Your task to perform on an android device: open sync settings in chrome Image 0: 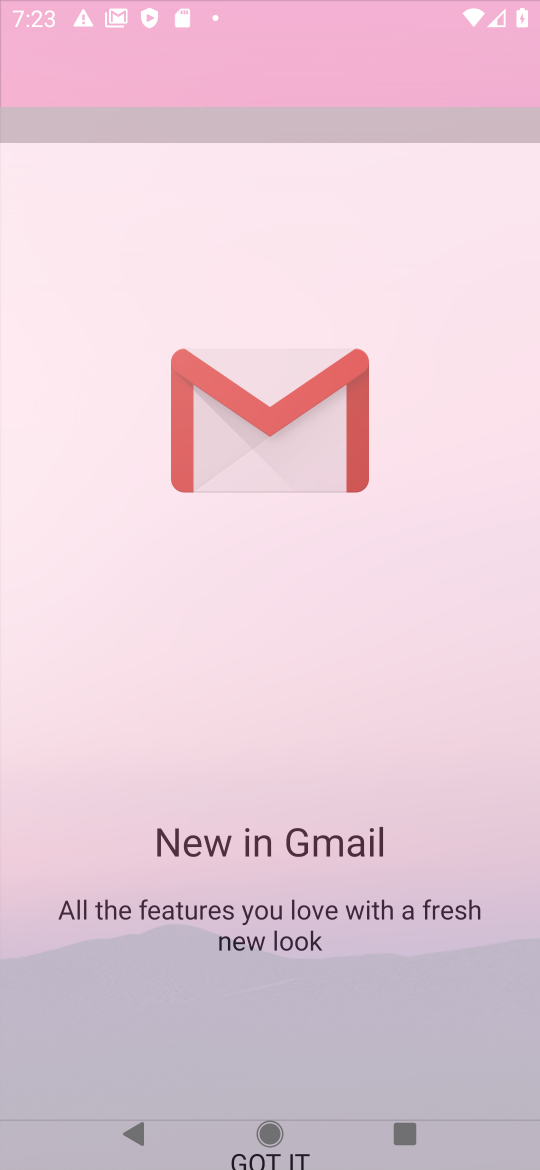
Step 0: press home button
Your task to perform on an android device: open sync settings in chrome Image 1: 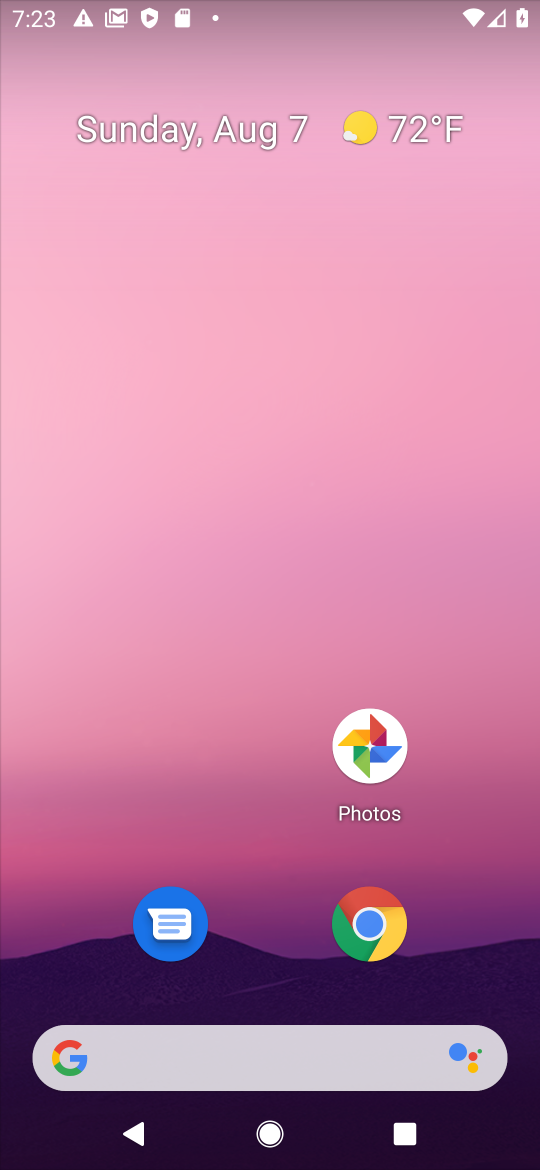
Step 1: drag from (424, 1081) to (361, 262)
Your task to perform on an android device: open sync settings in chrome Image 2: 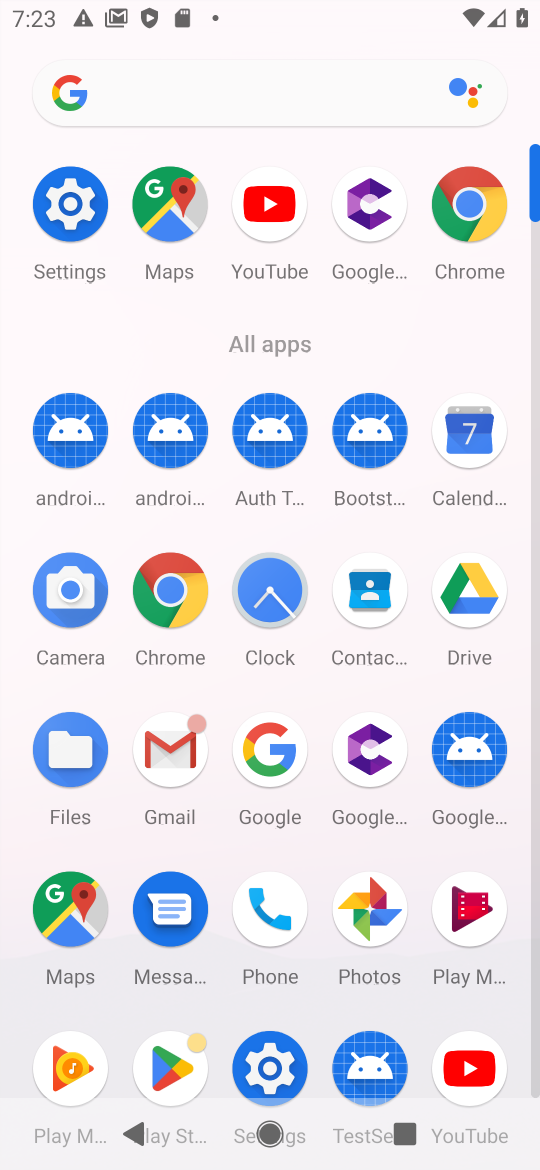
Step 2: click (453, 210)
Your task to perform on an android device: open sync settings in chrome Image 3: 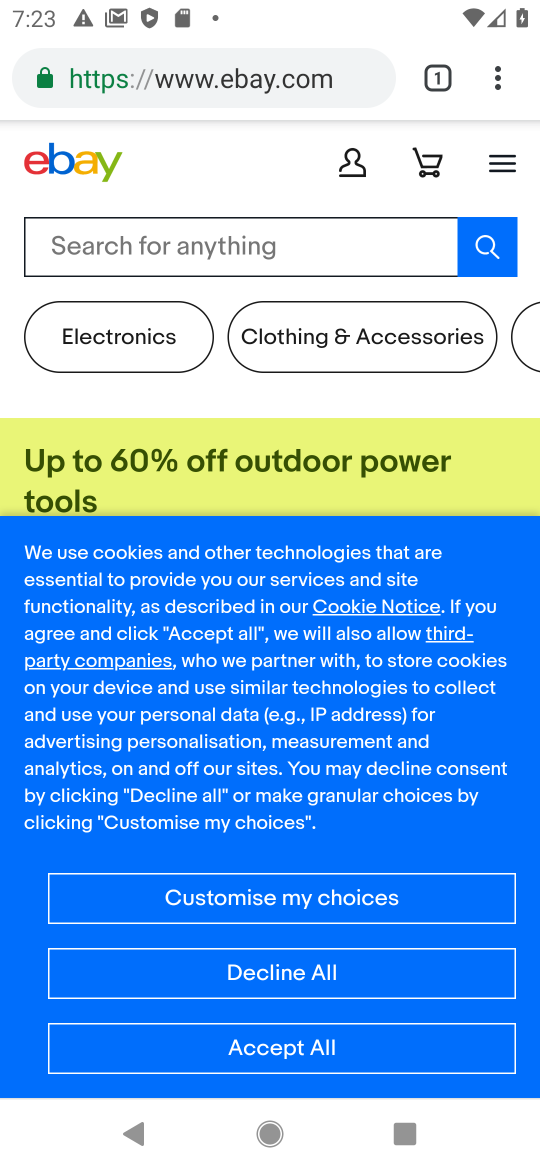
Step 3: click (492, 83)
Your task to perform on an android device: open sync settings in chrome Image 4: 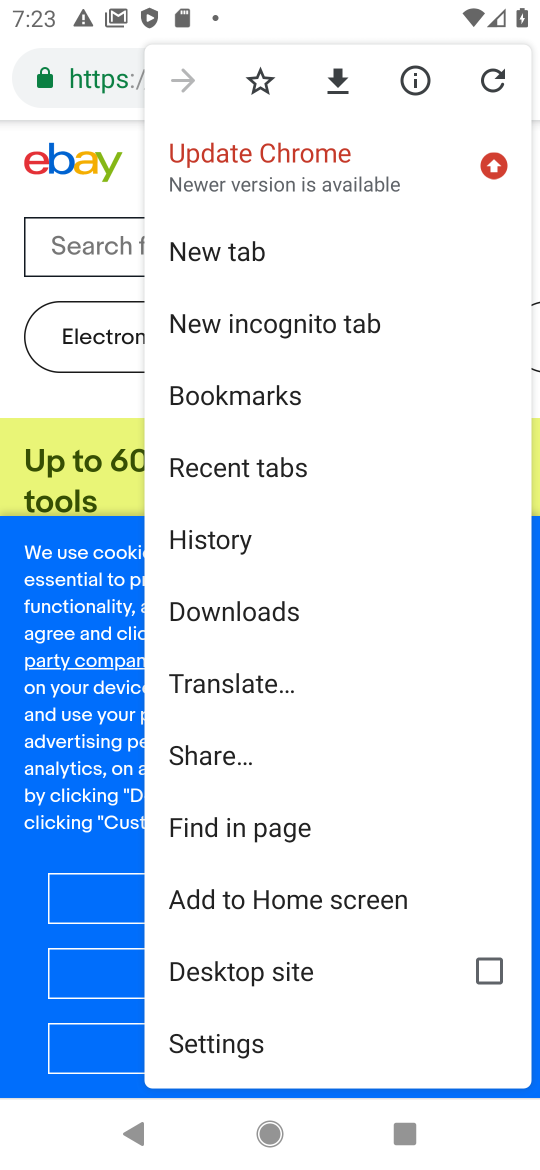
Step 4: click (205, 1049)
Your task to perform on an android device: open sync settings in chrome Image 5: 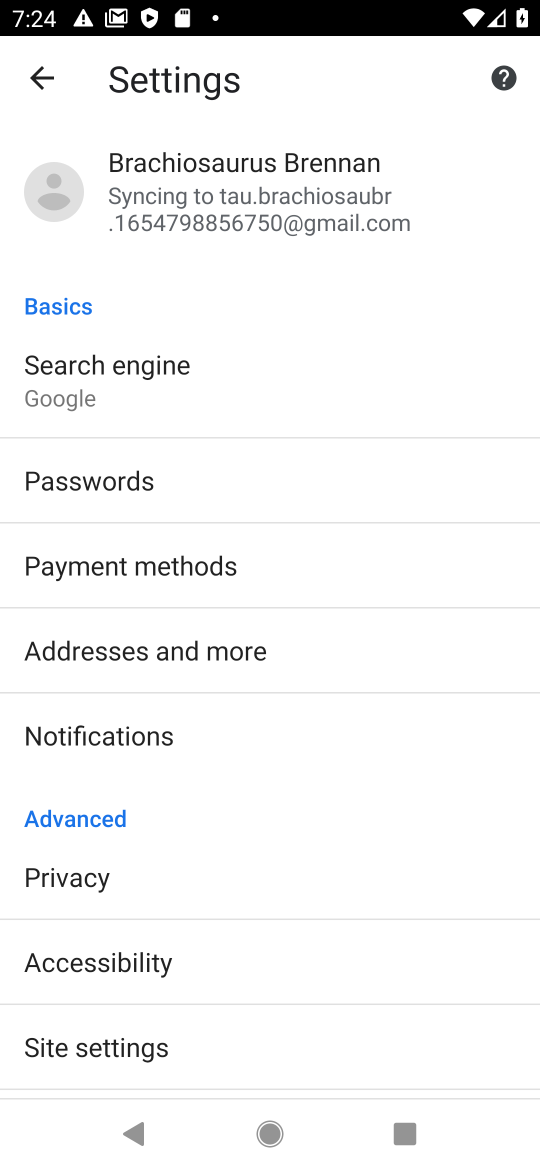
Step 5: click (151, 1031)
Your task to perform on an android device: open sync settings in chrome Image 6: 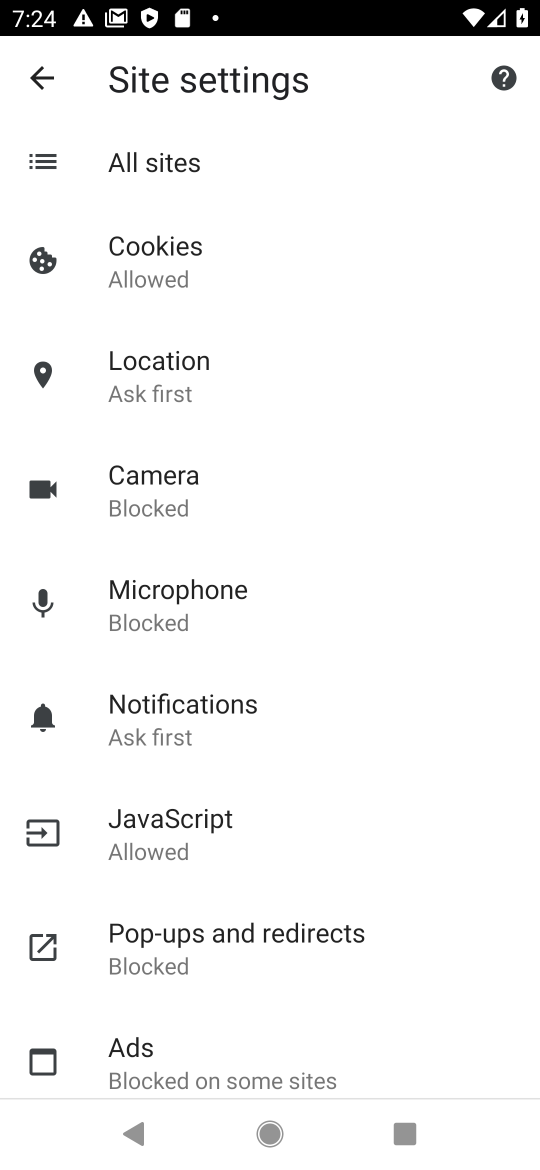
Step 6: drag from (265, 1022) to (278, 751)
Your task to perform on an android device: open sync settings in chrome Image 7: 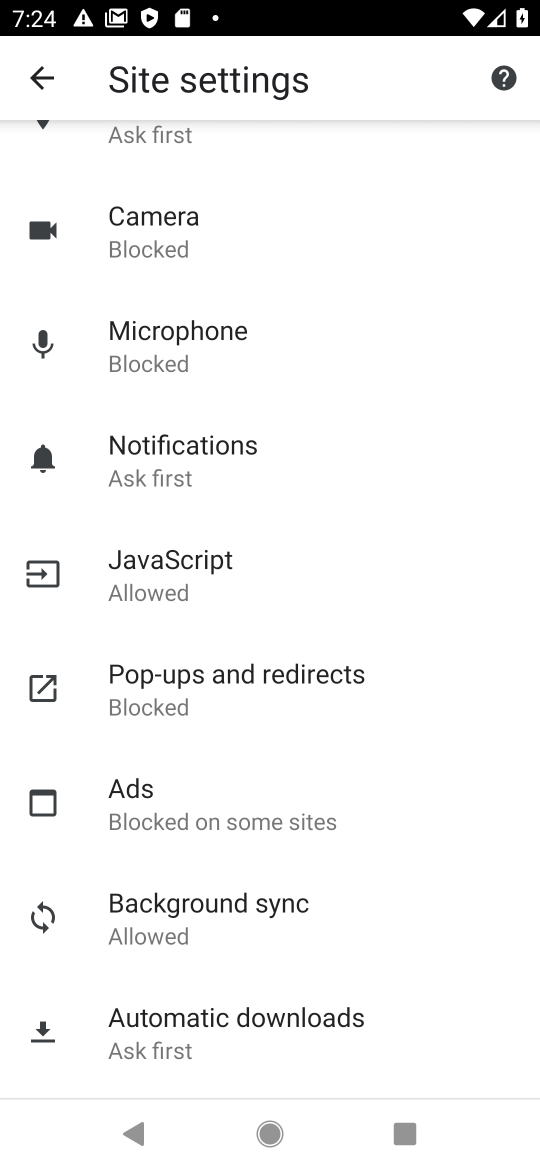
Step 7: click (256, 895)
Your task to perform on an android device: open sync settings in chrome Image 8: 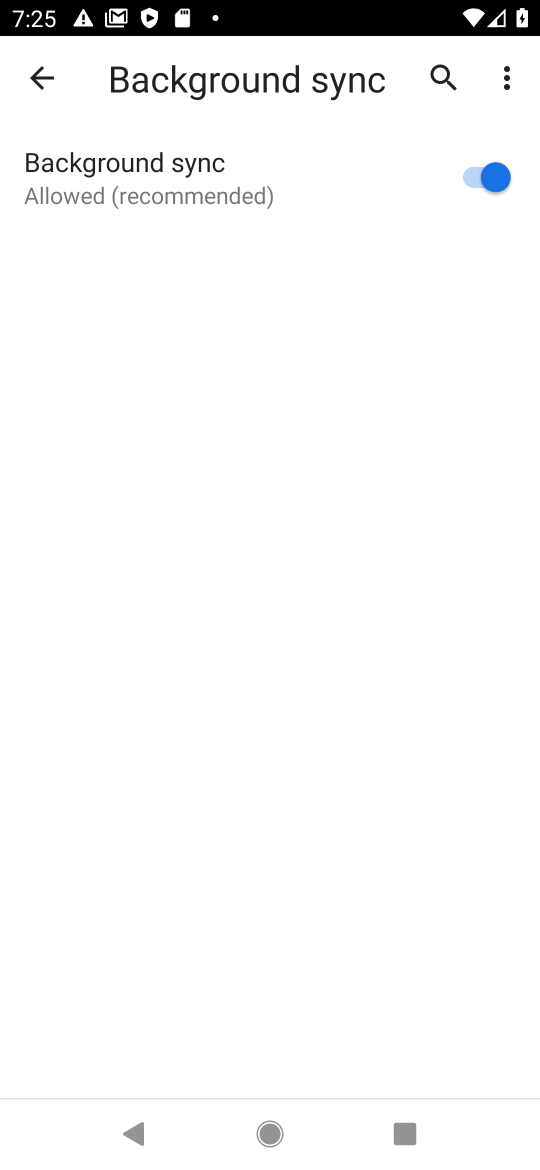
Step 8: task complete